Your task to perform on an android device: toggle show notifications on the lock screen Image 0: 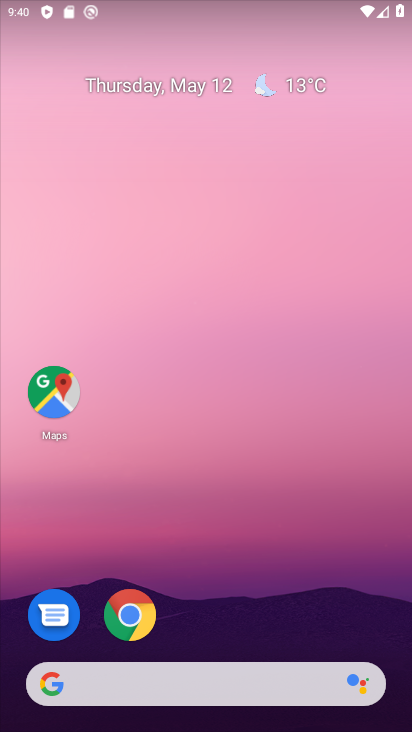
Step 0: drag from (334, 627) to (249, 163)
Your task to perform on an android device: toggle show notifications on the lock screen Image 1: 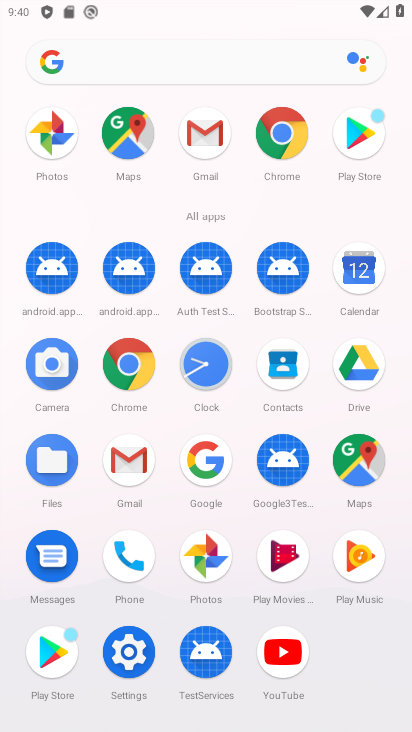
Step 1: drag from (382, 655) to (399, 112)
Your task to perform on an android device: toggle show notifications on the lock screen Image 2: 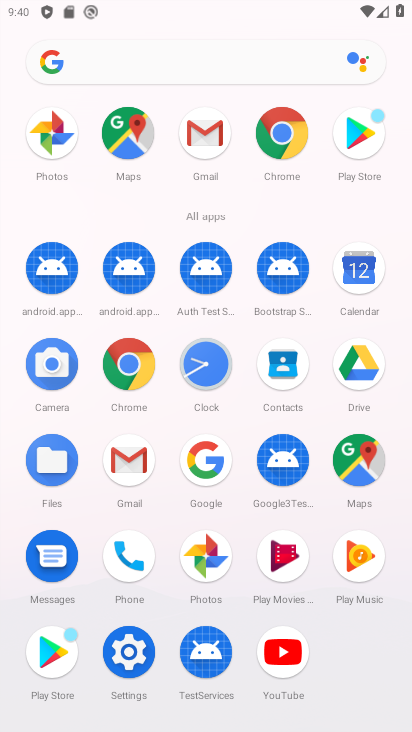
Step 2: click (127, 669)
Your task to perform on an android device: toggle show notifications on the lock screen Image 3: 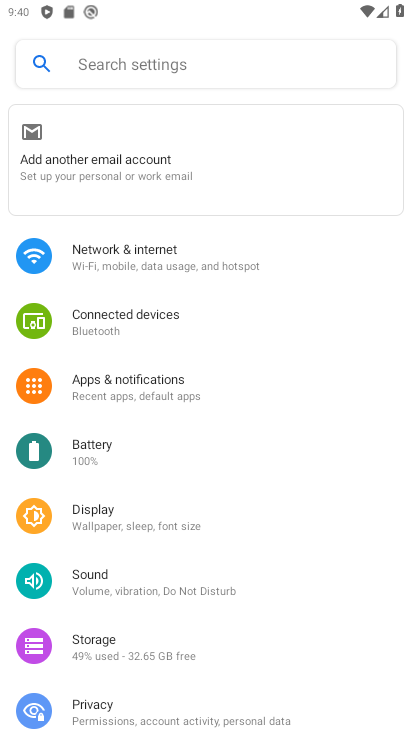
Step 3: click (166, 390)
Your task to perform on an android device: toggle show notifications on the lock screen Image 4: 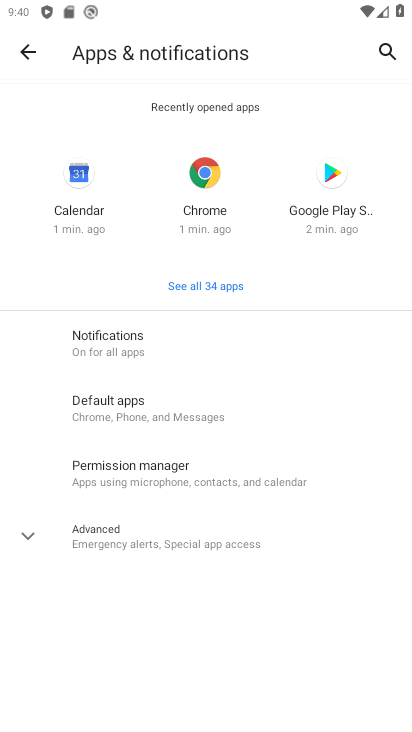
Step 4: click (99, 334)
Your task to perform on an android device: toggle show notifications on the lock screen Image 5: 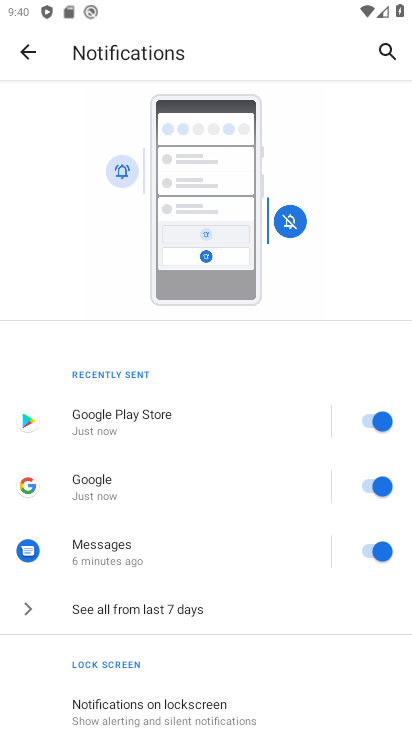
Step 5: drag from (176, 640) to (190, 296)
Your task to perform on an android device: toggle show notifications on the lock screen Image 6: 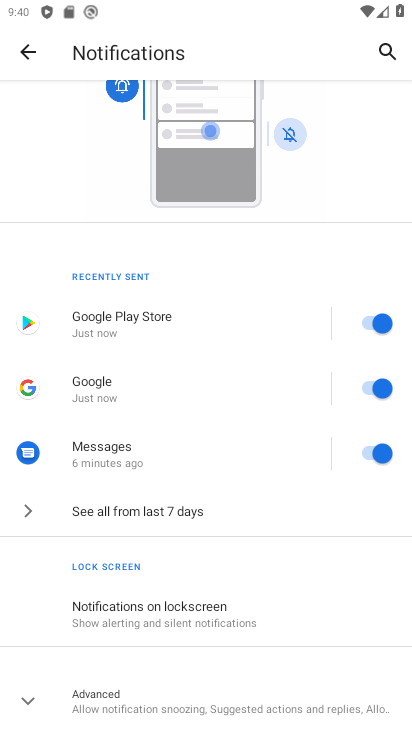
Step 6: click (143, 612)
Your task to perform on an android device: toggle show notifications on the lock screen Image 7: 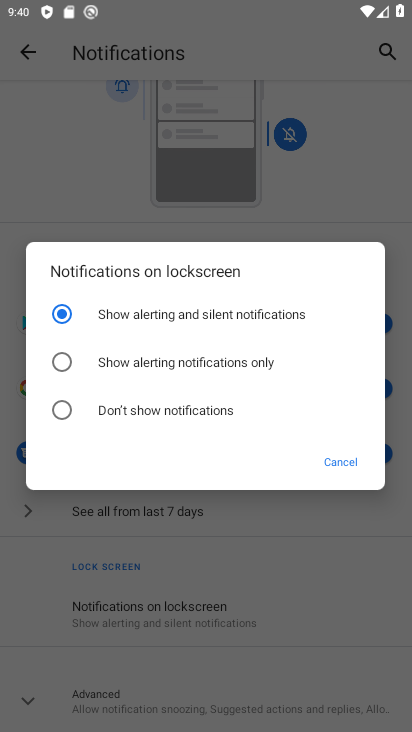
Step 7: click (58, 371)
Your task to perform on an android device: toggle show notifications on the lock screen Image 8: 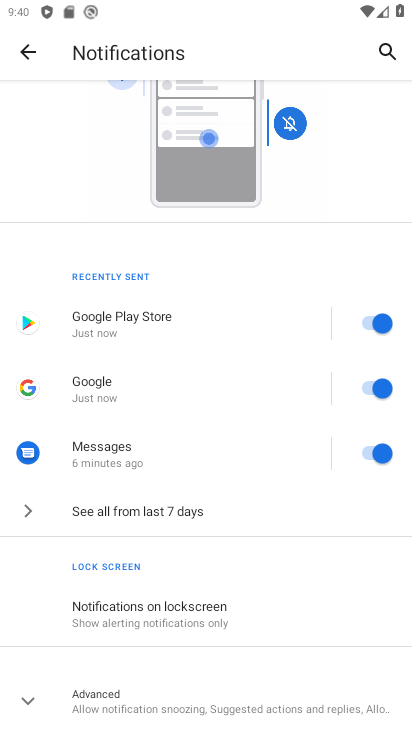
Step 8: task complete